Your task to perform on an android device: Go to wifi settings Image 0: 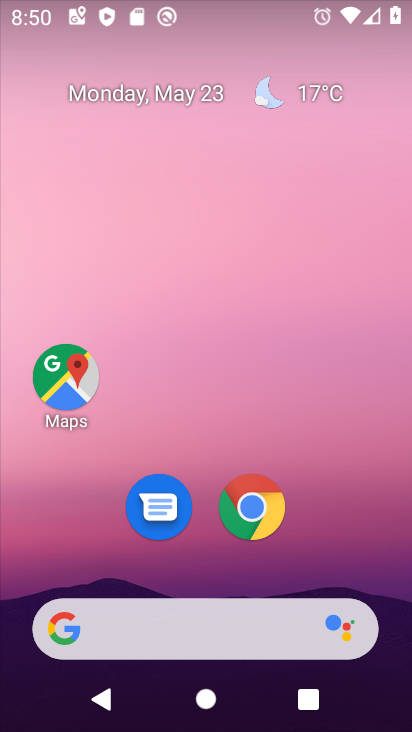
Step 0: drag from (361, 583) to (328, 10)
Your task to perform on an android device: Go to wifi settings Image 1: 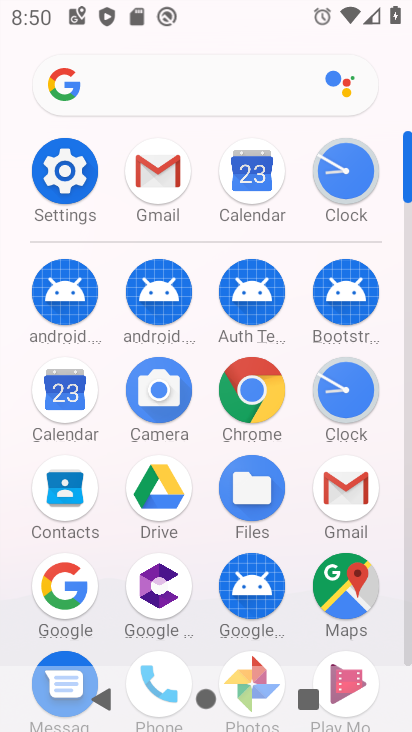
Step 1: click (51, 185)
Your task to perform on an android device: Go to wifi settings Image 2: 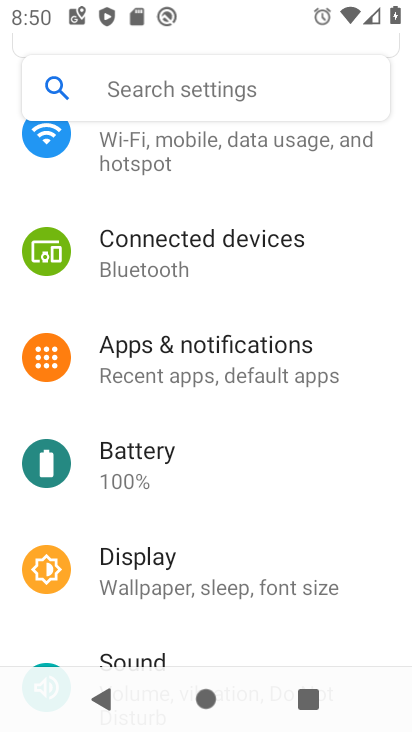
Step 2: drag from (317, 215) to (345, 465)
Your task to perform on an android device: Go to wifi settings Image 3: 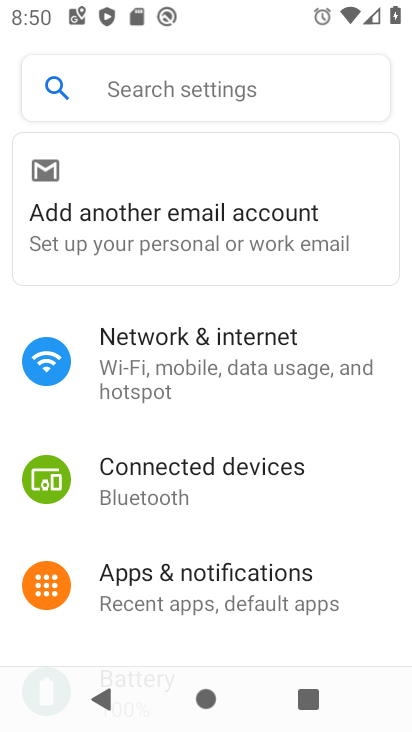
Step 3: click (180, 360)
Your task to perform on an android device: Go to wifi settings Image 4: 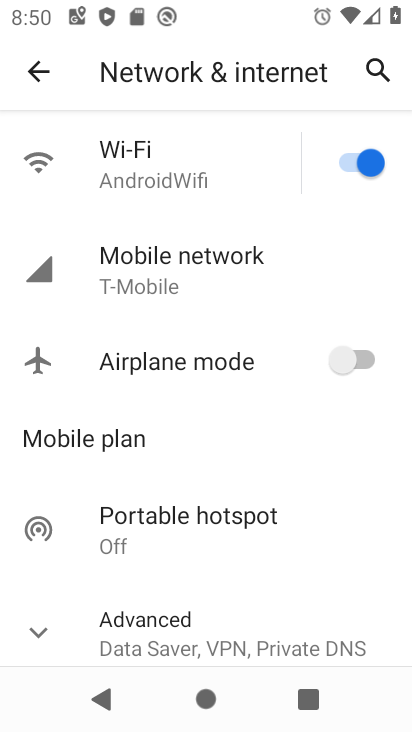
Step 4: click (112, 177)
Your task to perform on an android device: Go to wifi settings Image 5: 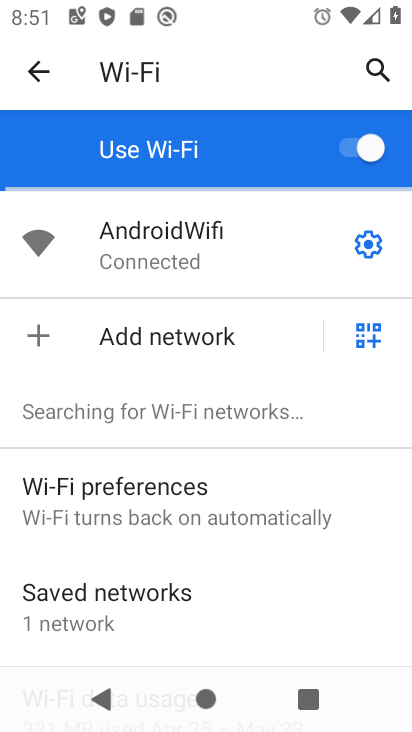
Step 5: task complete